Your task to perform on an android device: delete browsing data in the chrome app Image 0: 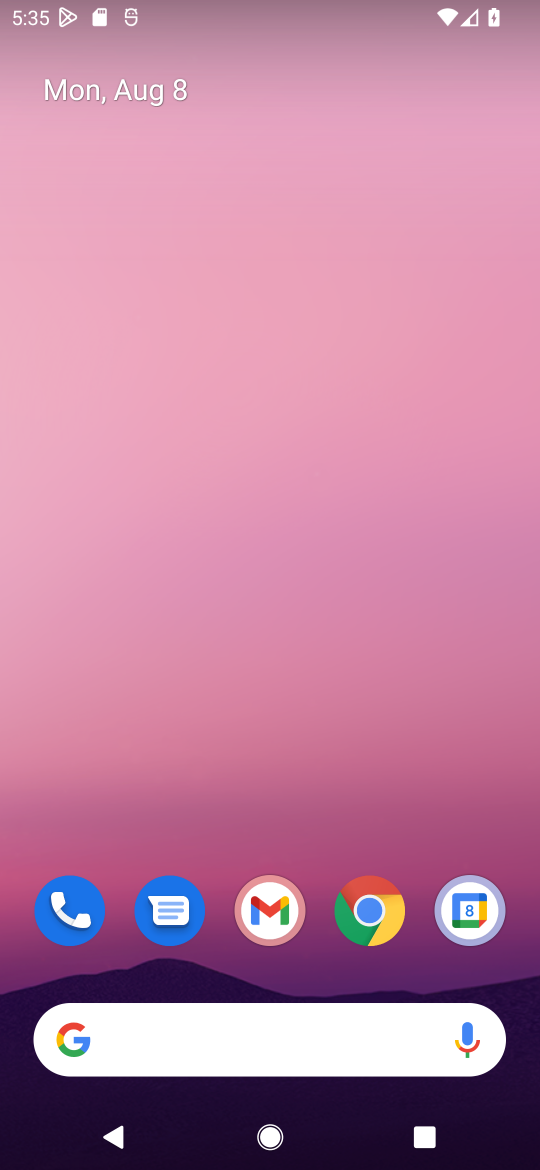
Step 0: click (368, 900)
Your task to perform on an android device: delete browsing data in the chrome app Image 1: 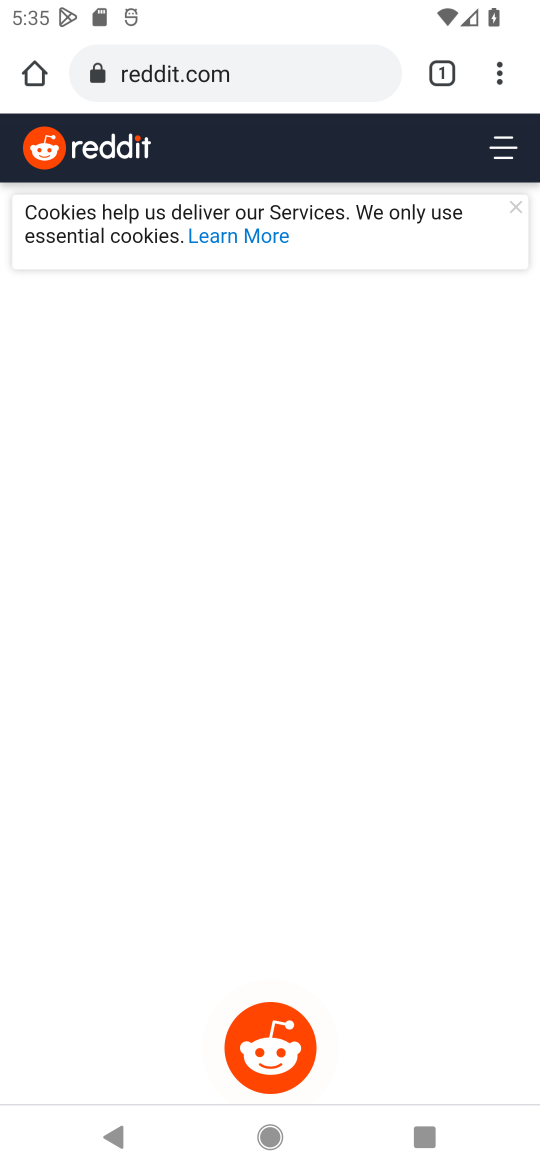
Step 1: click (501, 81)
Your task to perform on an android device: delete browsing data in the chrome app Image 2: 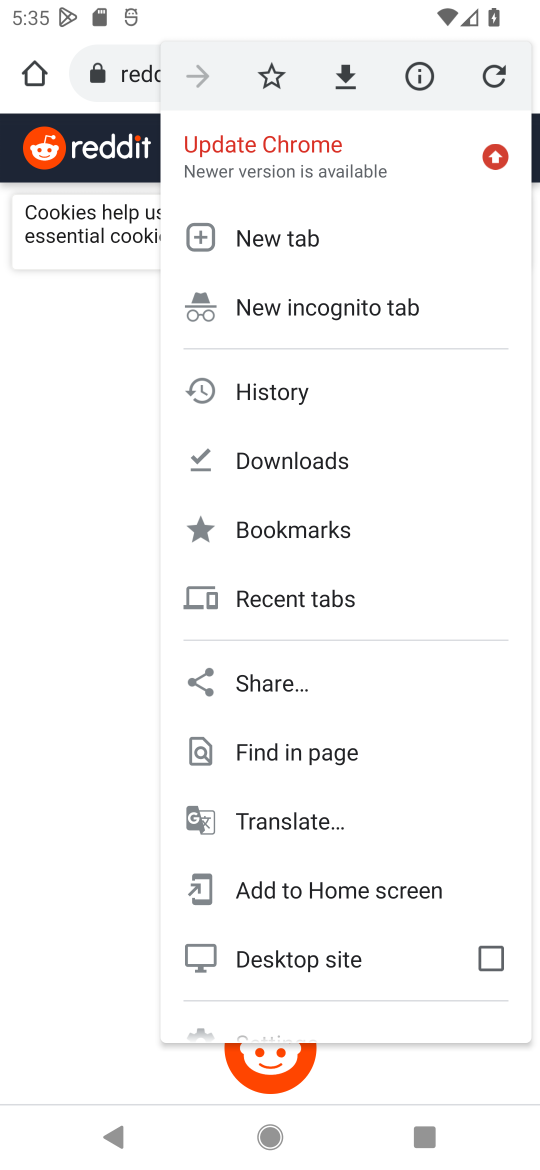
Step 2: drag from (384, 798) to (407, 466)
Your task to perform on an android device: delete browsing data in the chrome app Image 3: 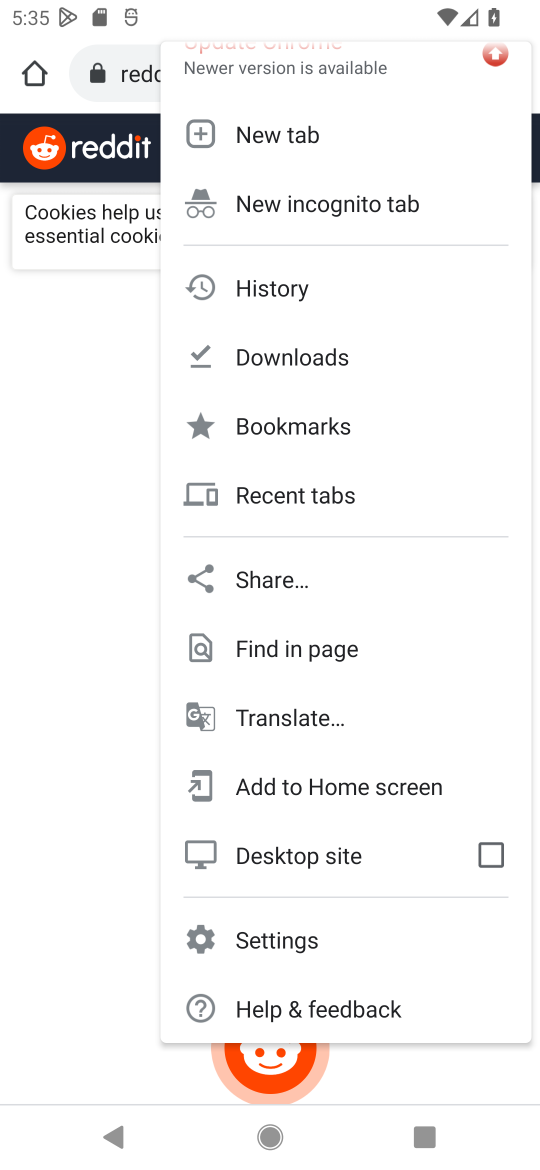
Step 3: click (297, 934)
Your task to perform on an android device: delete browsing data in the chrome app Image 4: 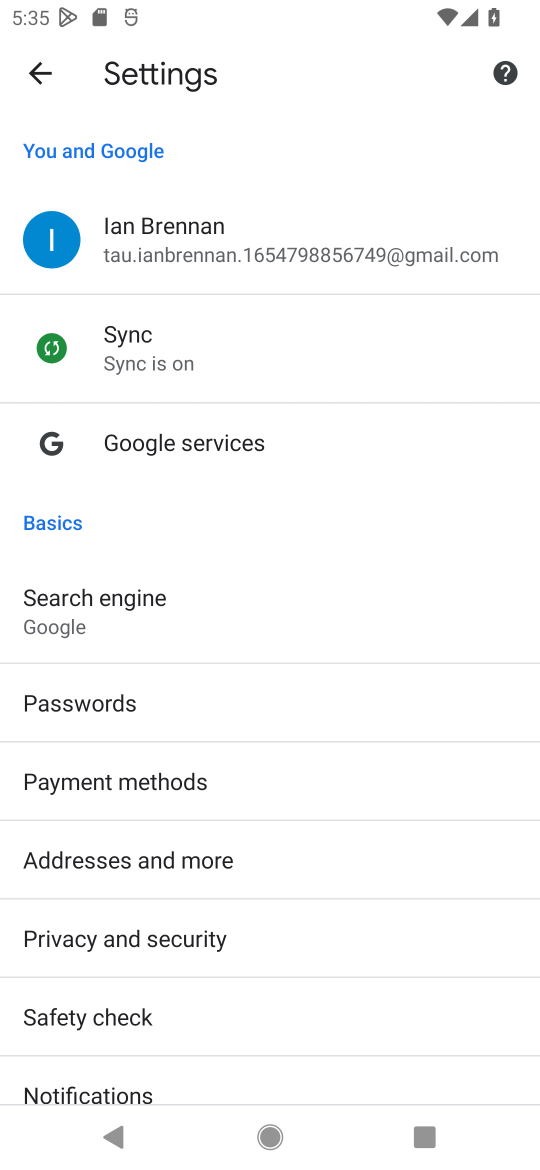
Step 4: click (29, 70)
Your task to perform on an android device: delete browsing data in the chrome app Image 5: 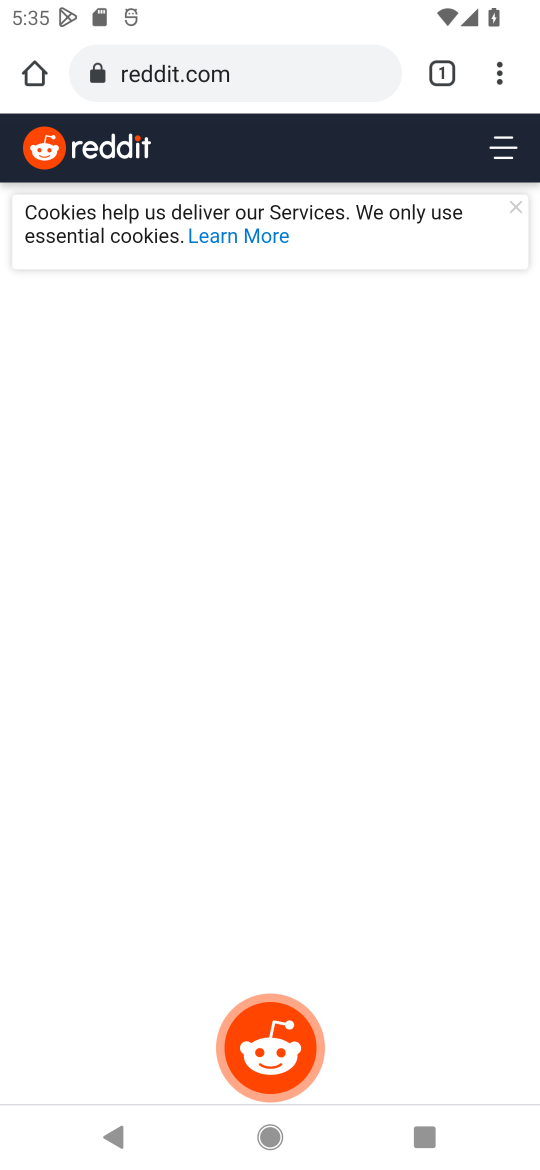
Step 5: click (496, 73)
Your task to perform on an android device: delete browsing data in the chrome app Image 6: 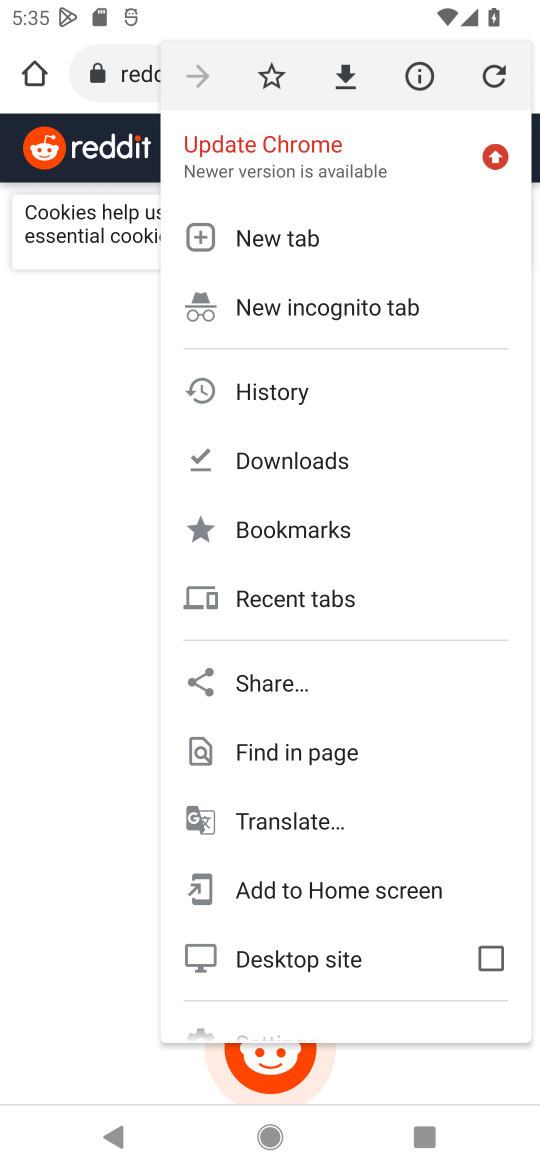
Step 6: click (300, 390)
Your task to perform on an android device: delete browsing data in the chrome app Image 7: 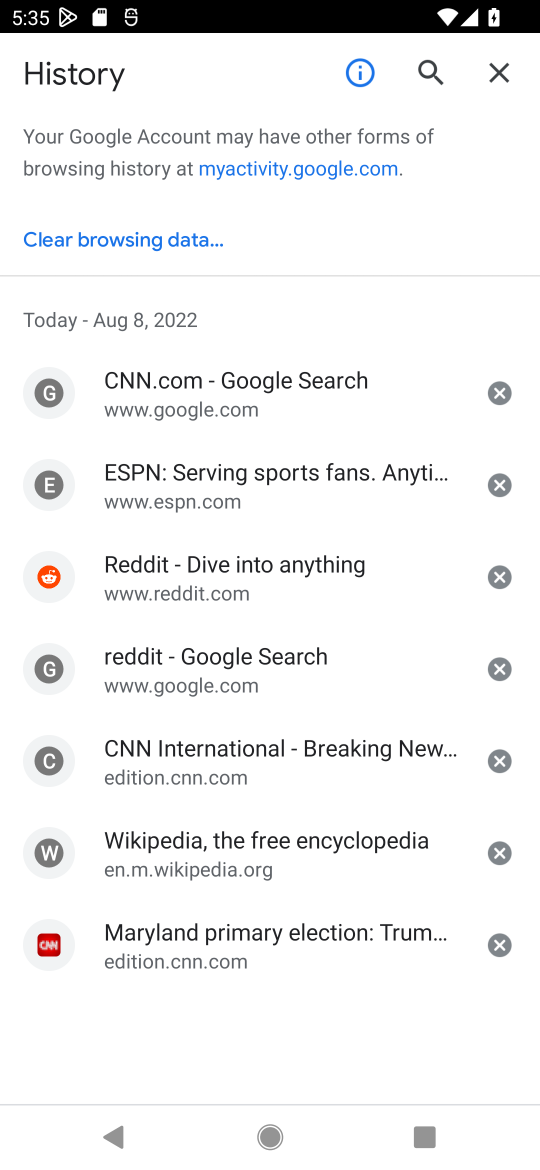
Step 7: click (155, 238)
Your task to perform on an android device: delete browsing data in the chrome app Image 8: 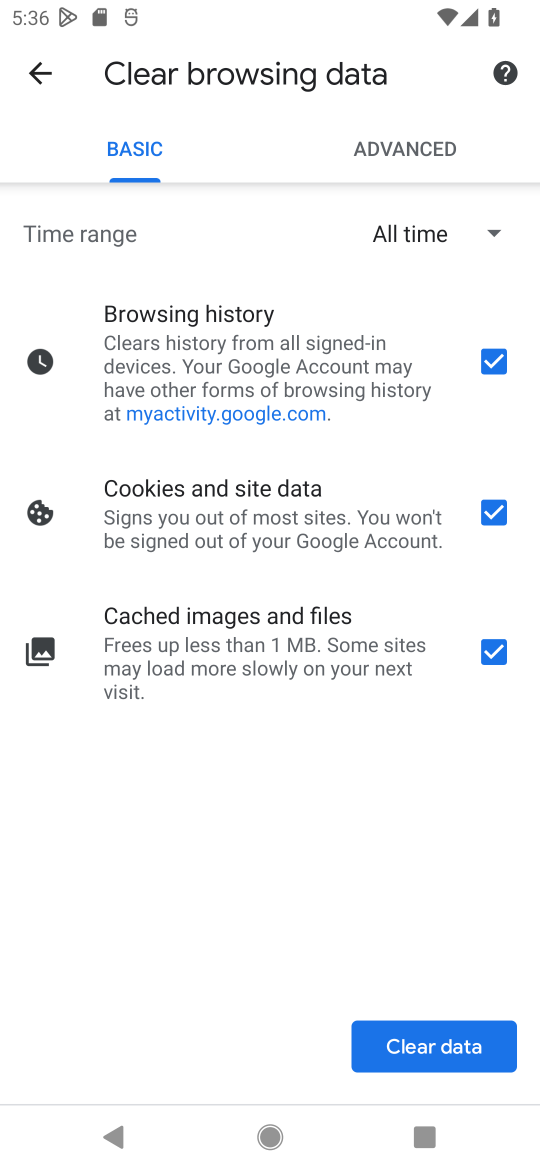
Step 8: click (429, 1047)
Your task to perform on an android device: delete browsing data in the chrome app Image 9: 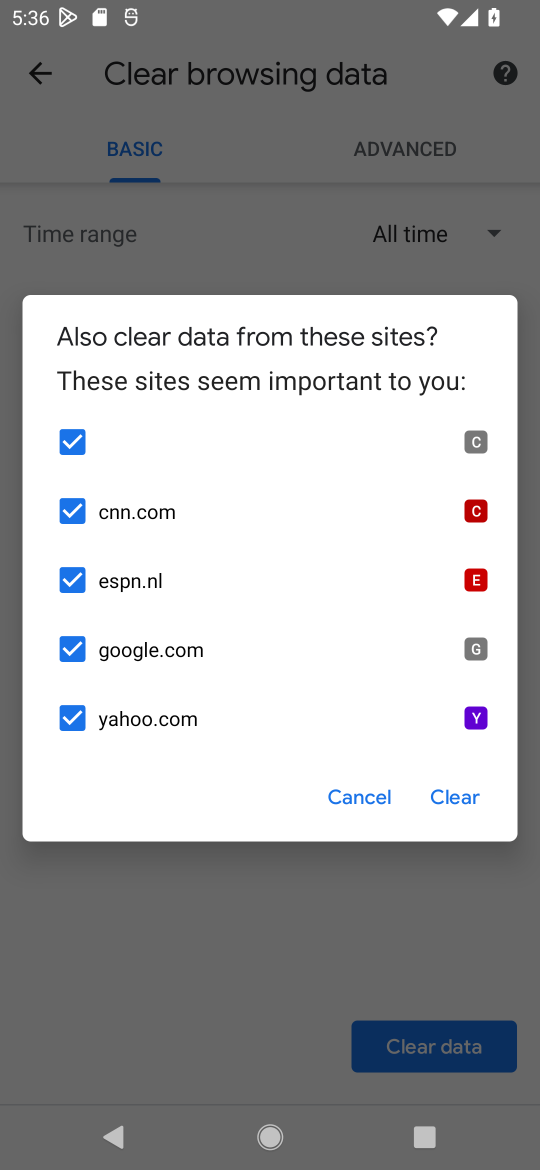
Step 9: click (433, 797)
Your task to perform on an android device: delete browsing data in the chrome app Image 10: 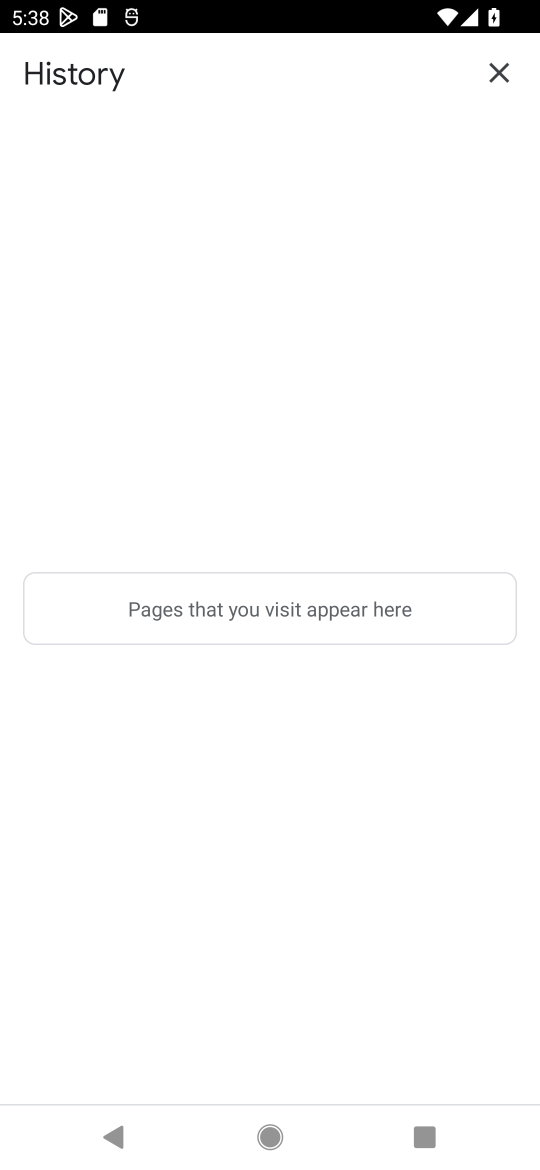
Step 10: task complete